Your task to perform on an android device: change the clock style Image 0: 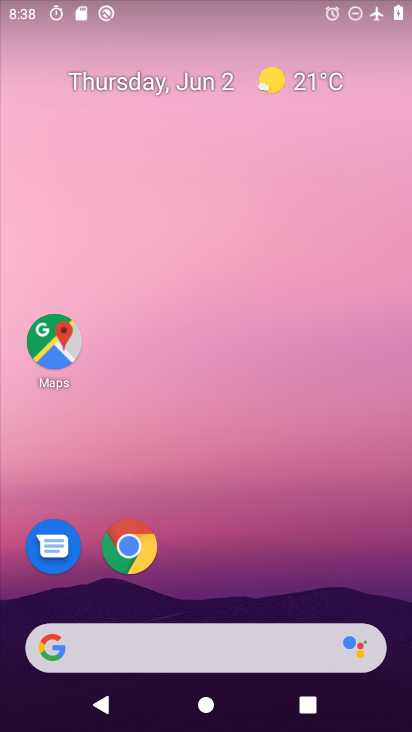
Step 0: drag from (309, 541) to (307, 142)
Your task to perform on an android device: change the clock style Image 1: 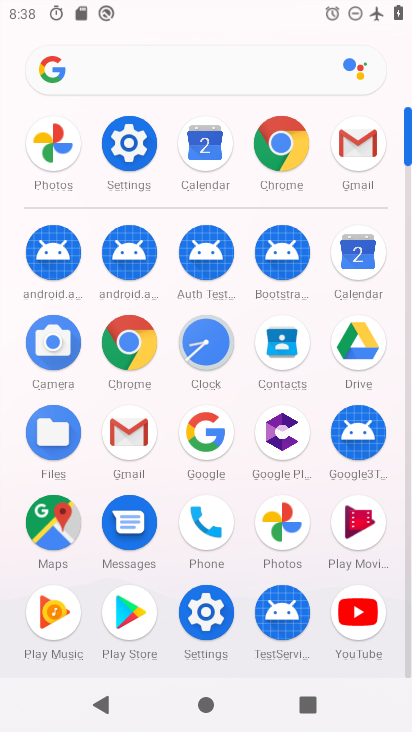
Step 1: drag from (243, 645) to (242, 381)
Your task to perform on an android device: change the clock style Image 2: 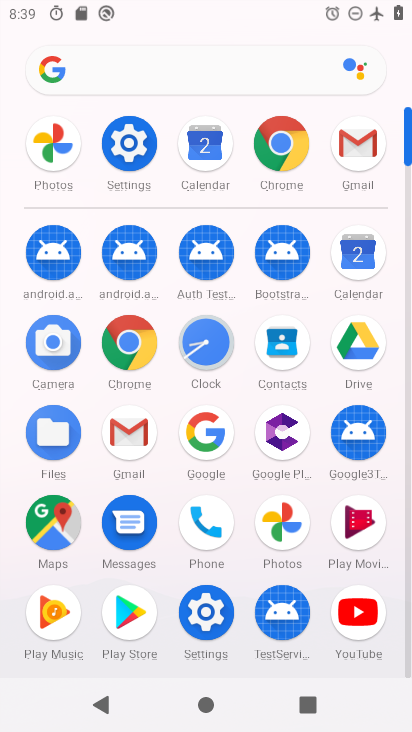
Step 2: click (227, 350)
Your task to perform on an android device: change the clock style Image 3: 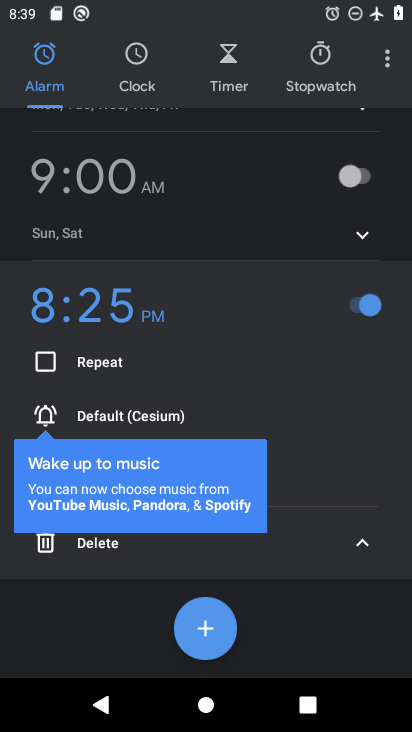
Step 3: click (155, 77)
Your task to perform on an android device: change the clock style Image 4: 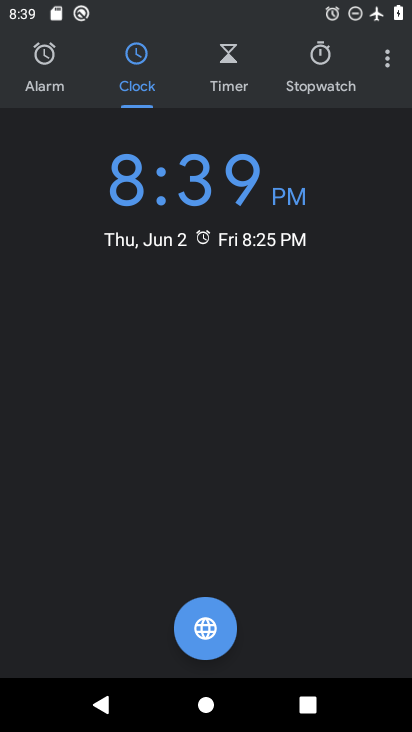
Step 4: drag from (391, 50) to (258, 103)
Your task to perform on an android device: change the clock style Image 5: 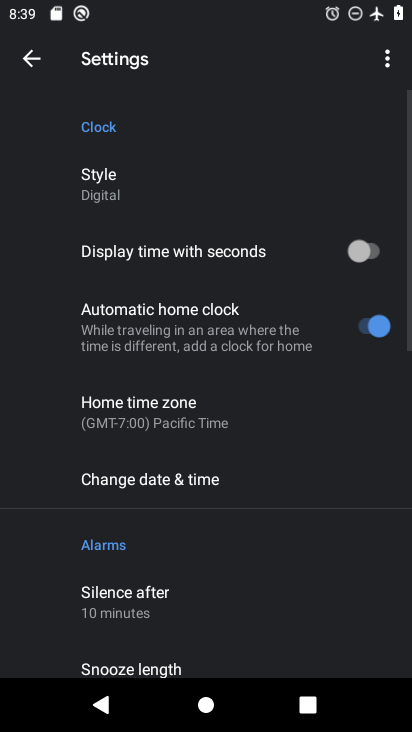
Step 5: drag from (251, 587) to (288, 258)
Your task to perform on an android device: change the clock style Image 6: 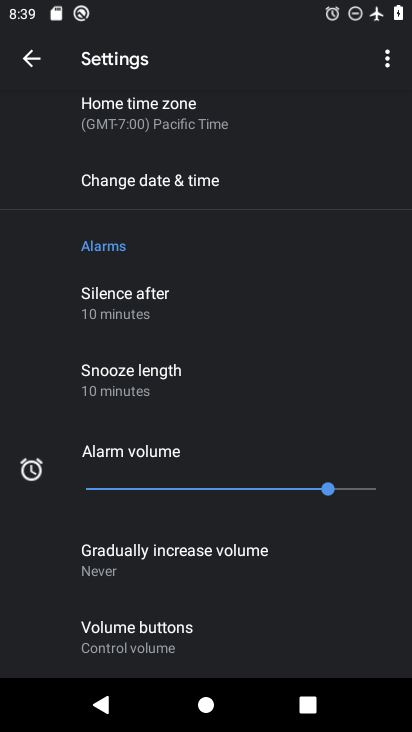
Step 6: drag from (283, 560) to (283, 269)
Your task to perform on an android device: change the clock style Image 7: 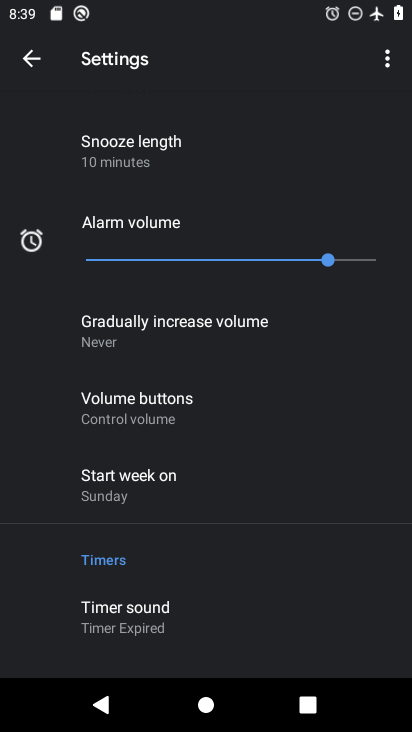
Step 7: drag from (267, 571) to (308, 325)
Your task to perform on an android device: change the clock style Image 8: 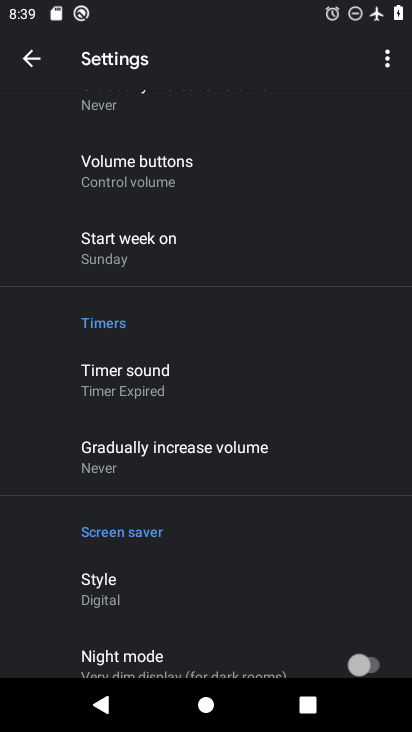
Step 8: drag from (303, 192) to (254, 617)
Your task to perform on an android device: change the clock style Image 9: 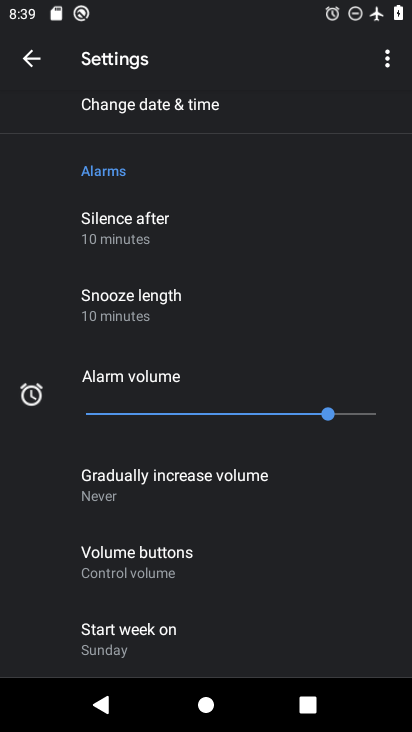
Step 9: drag from (218, 221) to (268, 627)
Your task to perform on an android device: change the clock style Image 10: 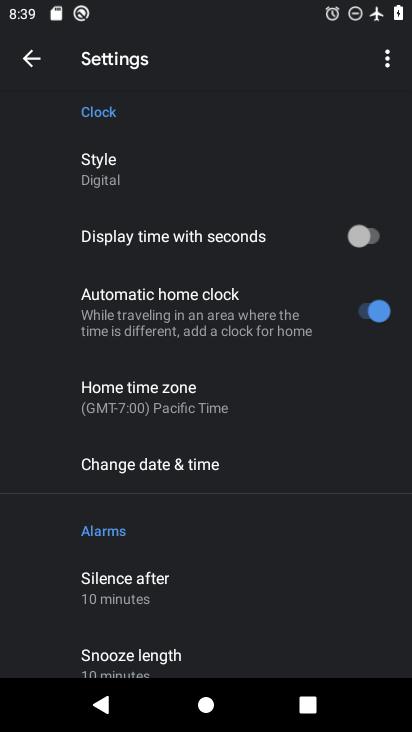
Step 10: drag from (179, 208) to (200, 664)
Your task to perform on an android device: change the clock style Image 11: 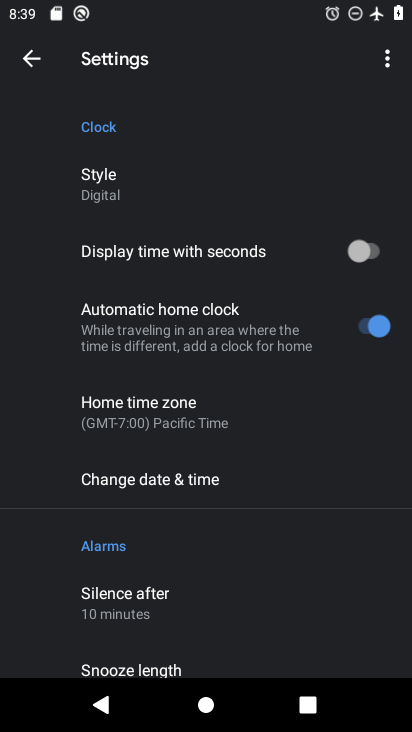
Step 11: click (135, 217)
Your task to perform on an android device: change the clock style Image 12: 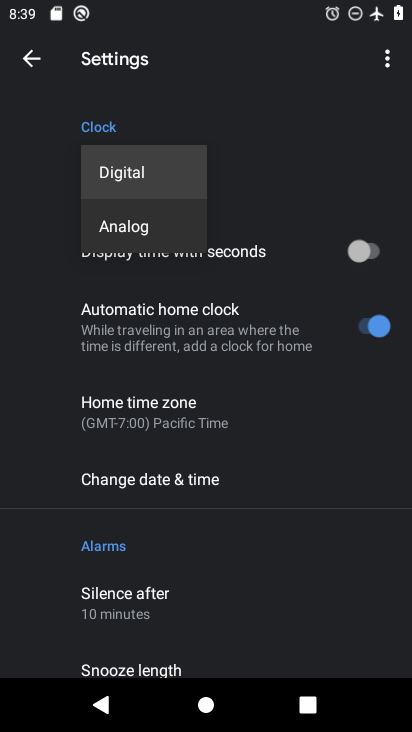
Step 12: click (137, 215)
Your task to perform on an android device: change the clock style Image 13: 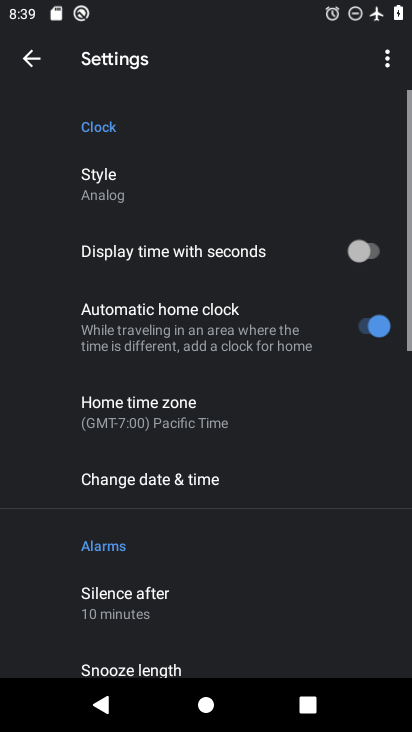
Step 13: task complete